Your task to perform on an android device: turn off sleep mode Image 0: 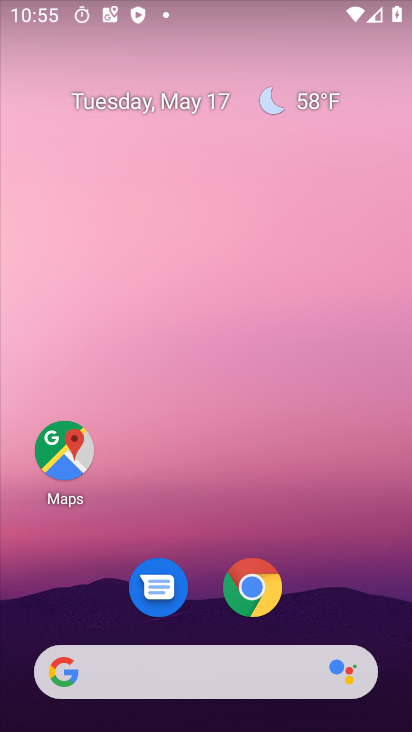
Step 0: drag from (356, 580) to (341, 72)
Your task to perform on an android device: turn off sleep mode Image 1: 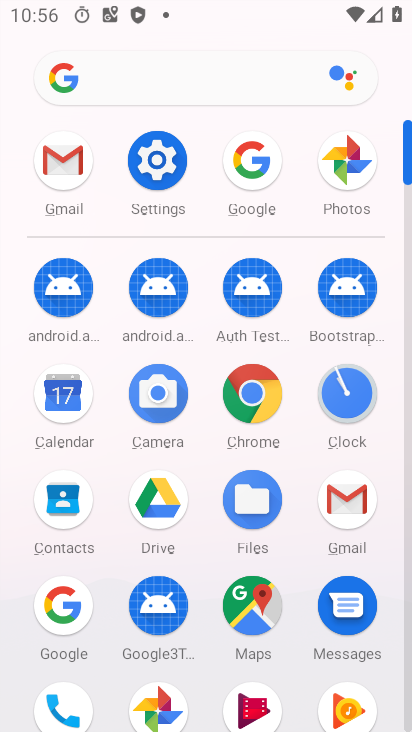
Step 1: click (156, 159)
Your task to perform on an android device: turn off sleep mode Image 2: 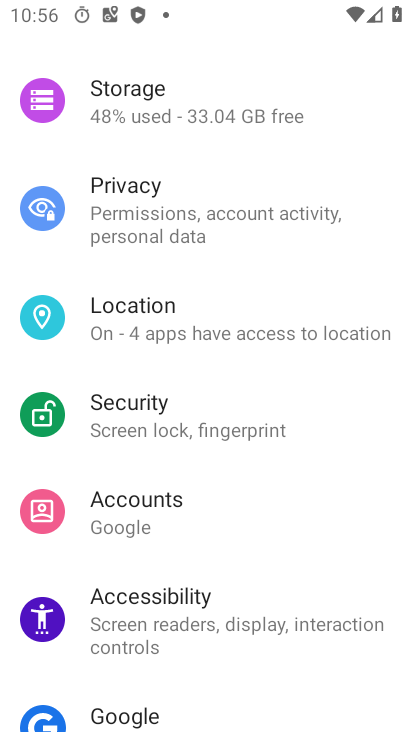
Step 2: drag from (189, 197) to (209, 269)
Your task to perform on an android device: turn off sleep mode Image 3: 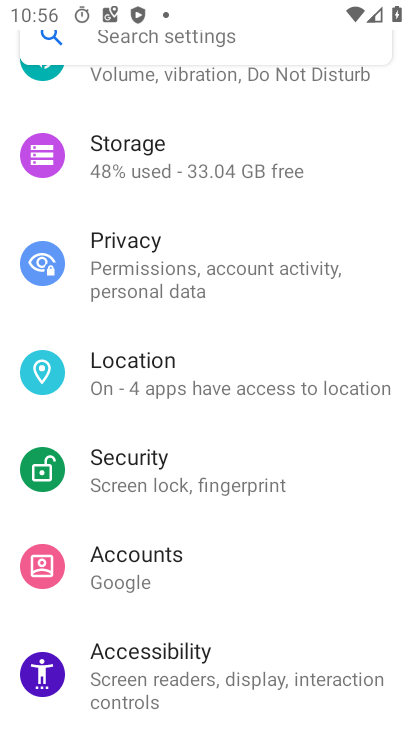
Step 3: drag from (218, 141) to (242, 235)
Your task to perform on an android device: turn off sleep mode Image 4: 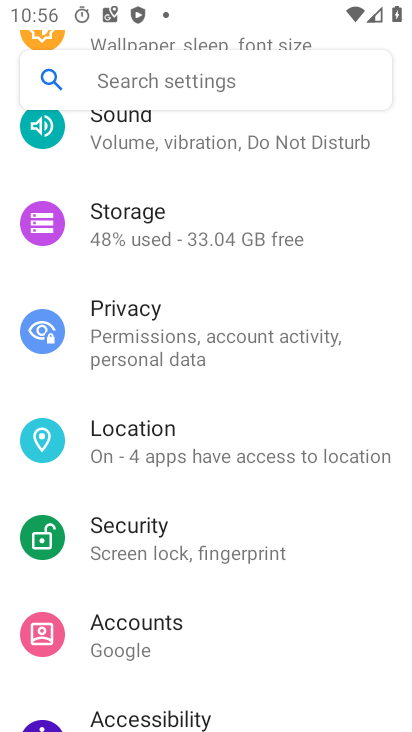
Step 4: drag from (194, 181) to (231, 282)
Your task to perform on an android device: turn off sleep mode Image 5: 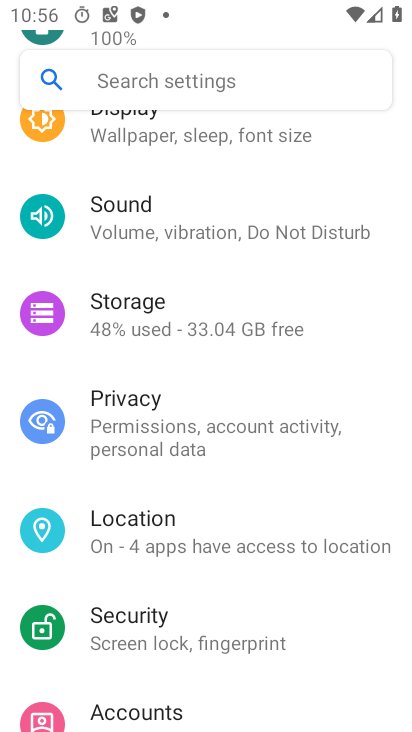
Step 5: drag from (203, 191) to (227, 274)
Your task to perform on an android device: turn off sleep mode Image 6: 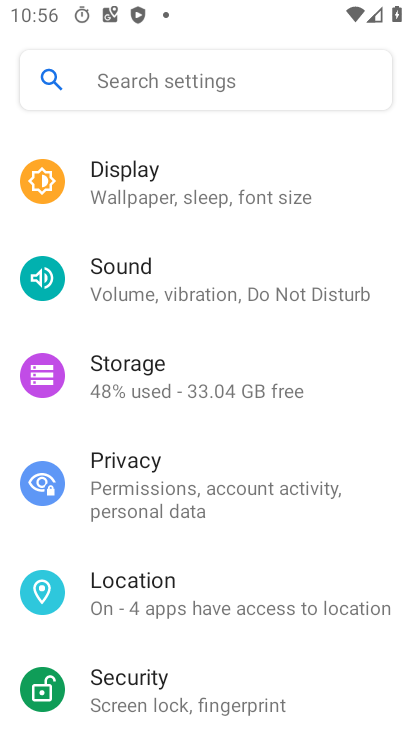
Step 6: click (210, 189)
Your task to perform on an android device: turn off sleep mode Image 7: 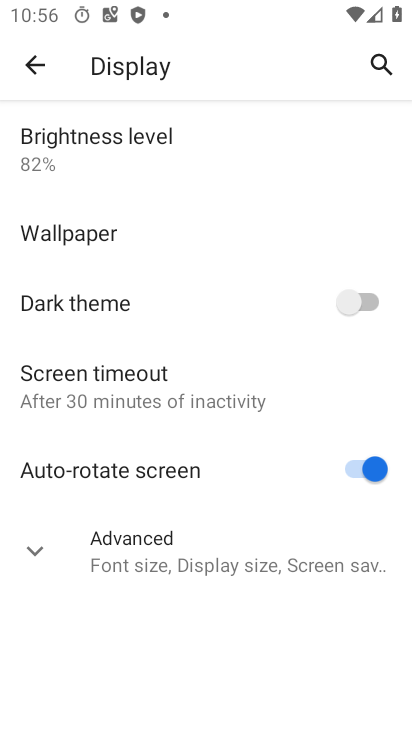
Step 7: click (135, 394)
Your task to perform on an android device: turn off sleep mode Image 8: 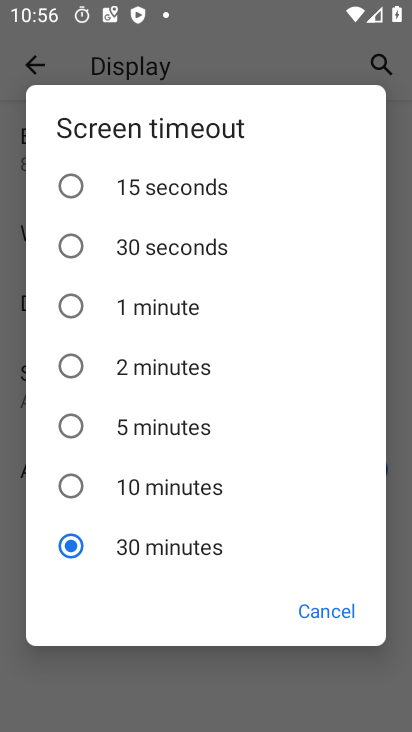
Step 8: drag from (232, 247) to (281, 351)
Your task to perform on an android device: turn off sleep mode Image 9: 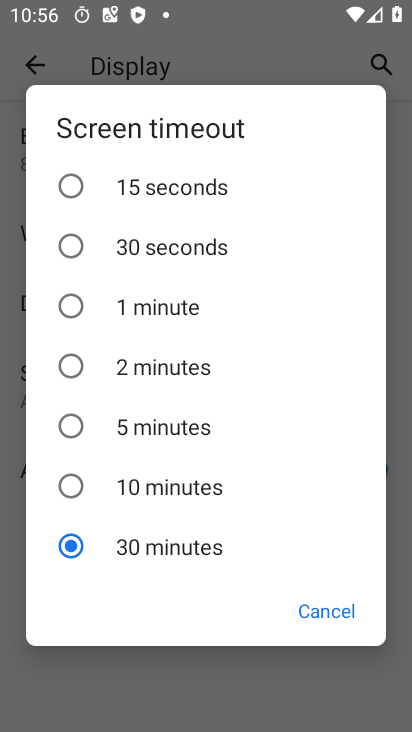
Step 9: drag from (237, 503) to (228, 266)
Your task to perform on an android device: turn off sleep mode Image 10: 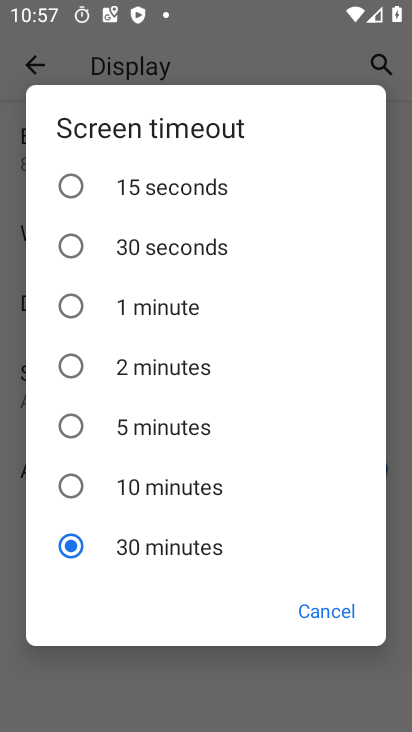
Step 10: click (324, 622)
Your task to perform on an android device: turn off sleep mode Image 11: 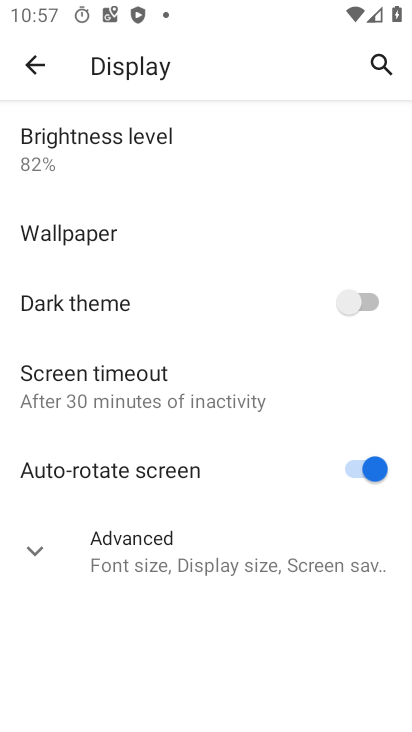
Step 11: click (116, 372)
Your task to perform on an android device: turn off sleep mode Image 12: 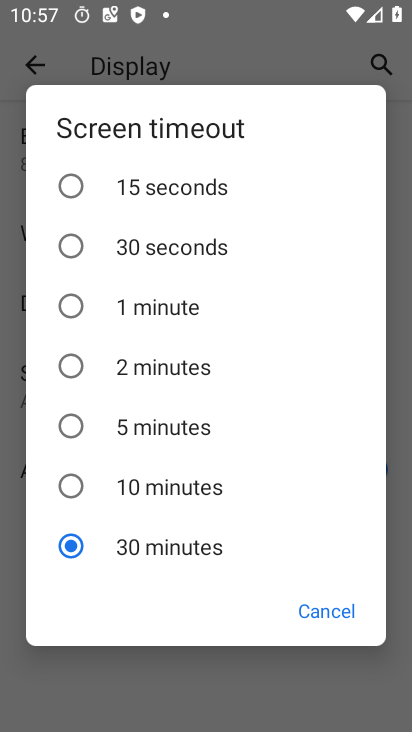
Step 12: click (305, 616)
Your task to perform on an android device: turn off sleep mode Image 13: 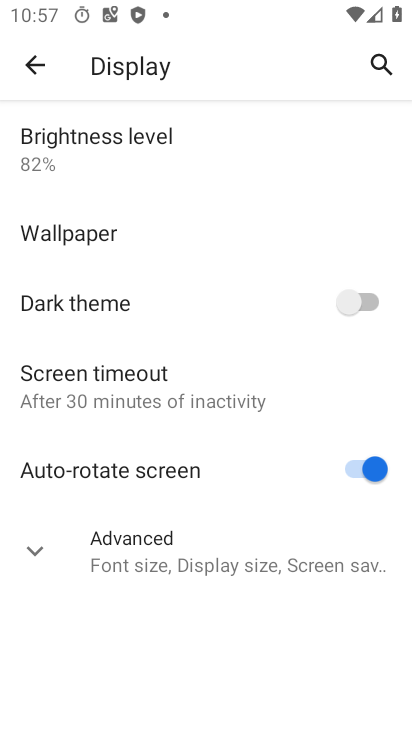
Step 13: click (235, 567)
Your task to perform on an android device: turn off sleep mode Image 14: 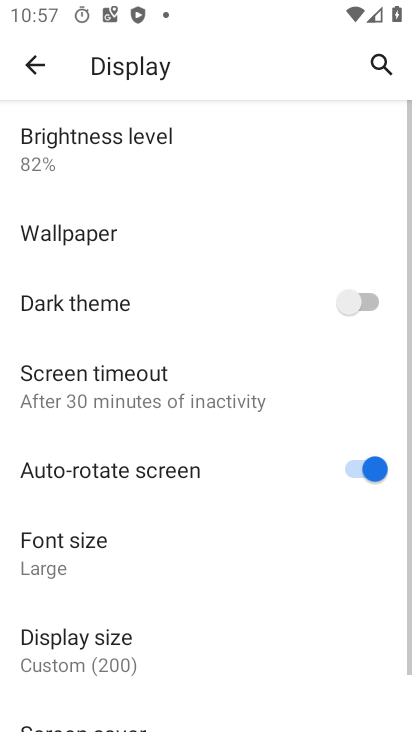
Step 14: drag from (175, 629) to (179, 534)
Your task to perform on an android device: turn off sleep mode Image 15: 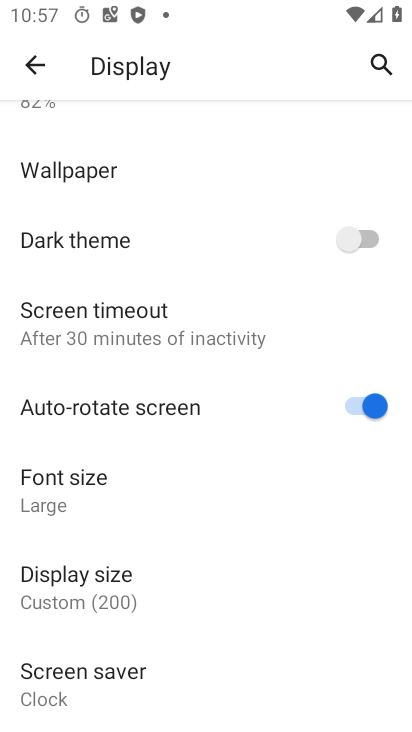
Step 15: click (85, 666)
Your task to perform on an android device: turn off sleep mode Image 16: 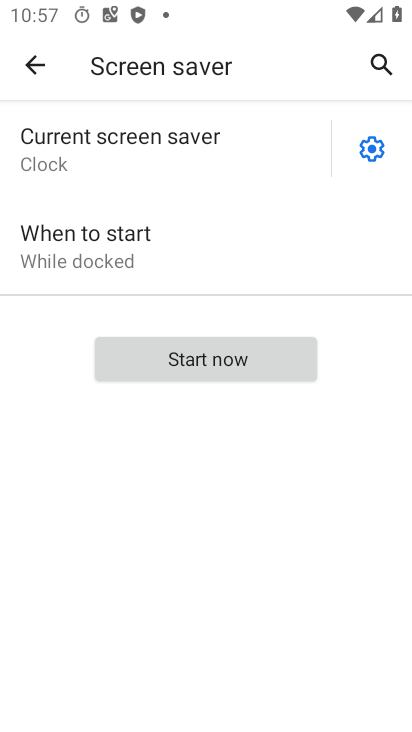
Step 16: click (149, 145)
Your task to perform on an android device: turn off sleep mode Image 17: 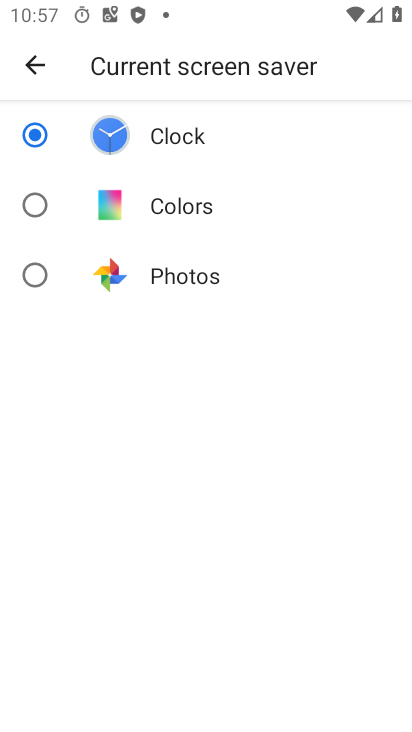
Step 17: click (187, 373)
Your task to perform on an android device: turn off sleep mode Image 18: 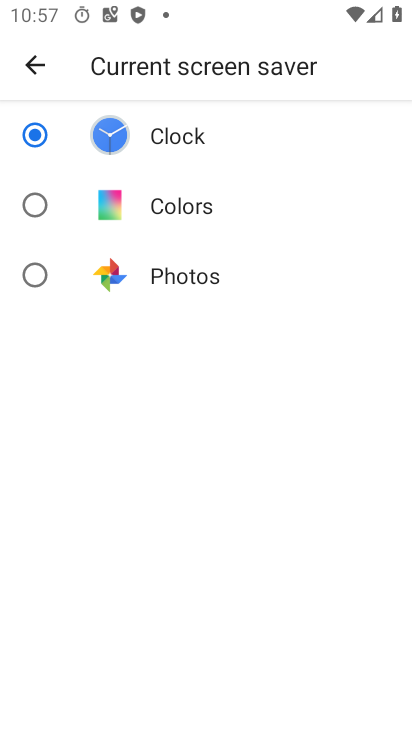
Step 18: click (36, 75)
Your task to perform on an android device: turn off sleep mode Image 19: 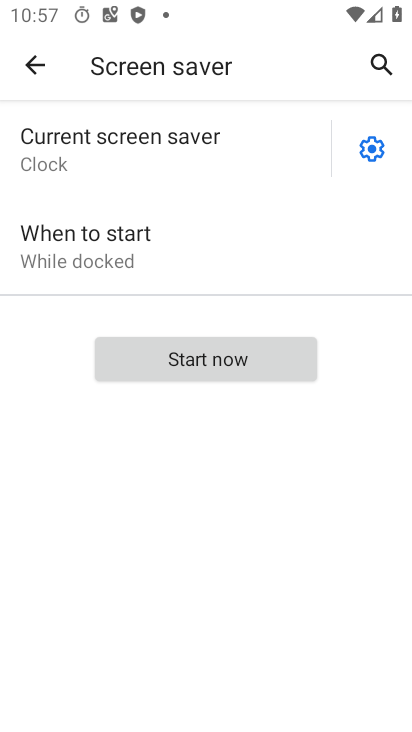
Step 19: click (369, 145)
Your task to perform on an android device: turn off sleep mode Image 20: 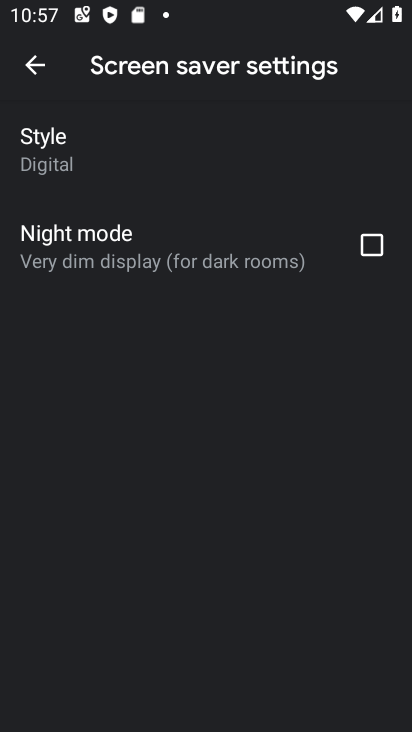
Step 20: click (363, 248)
Your task to perform on an android device: turn off sleep mode Image 21: 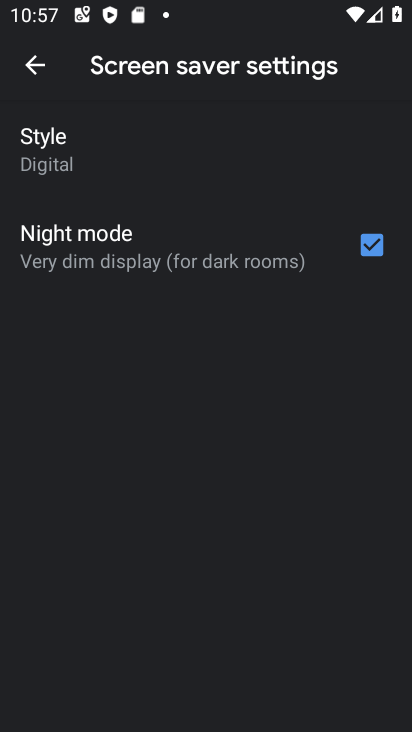
Step 21: click (39, 65)
Your task to perform on an android device: turn off sleep mode Image 22: 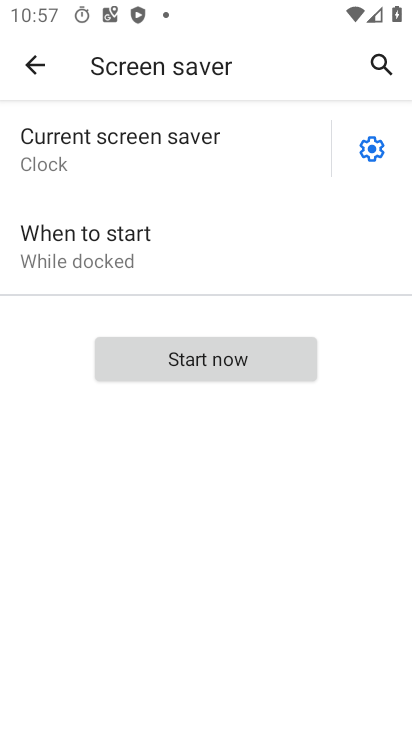
Step 22: click (39, 65)
Your task to perform on an android device: turn off sleep mode Image 23: 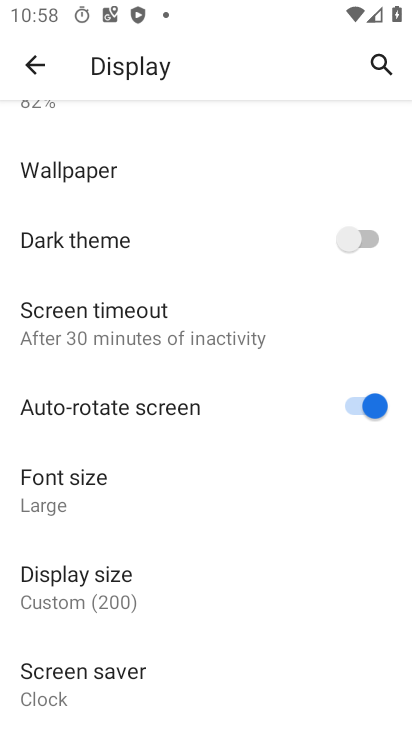
Step 23: task complete